Your task to perform on an android device: add a label to a message in the gmail app Image 0: 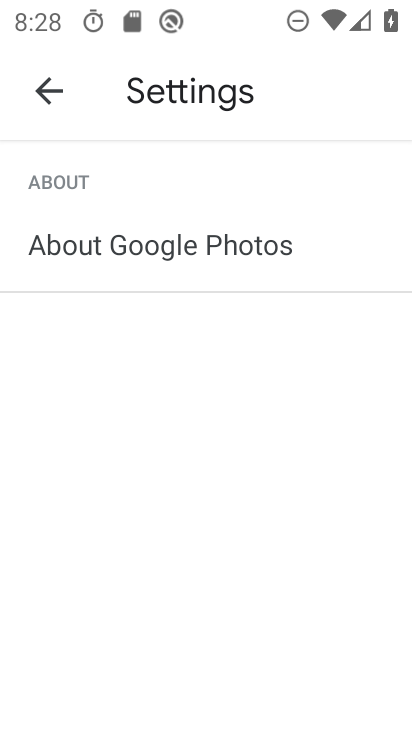
Step 0: press home button
Your task to perform on an android device: add a label to a message in the gmail app Image 1: 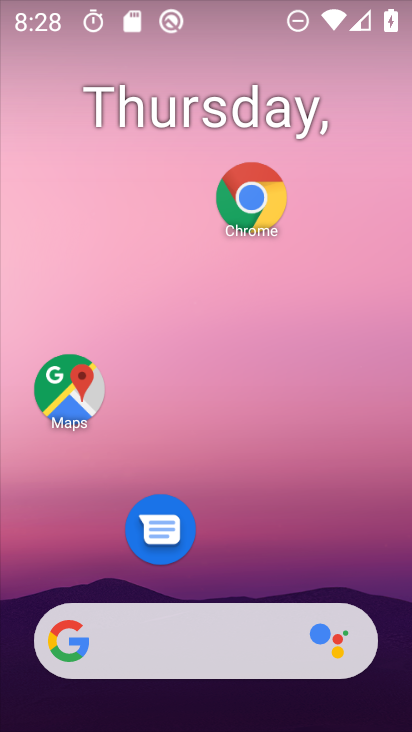
Step 1: drag from (232, 549) to (169, 10)
Your task to perform on an android device: add a label to a message in the gmail app Image 2: 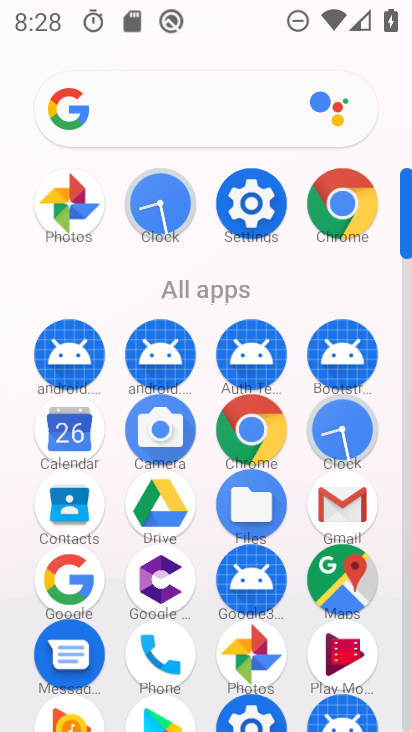
Step 2: click (344, 507)
Your task to perform on an android device: add a label to a message in the gmail app Image 3: 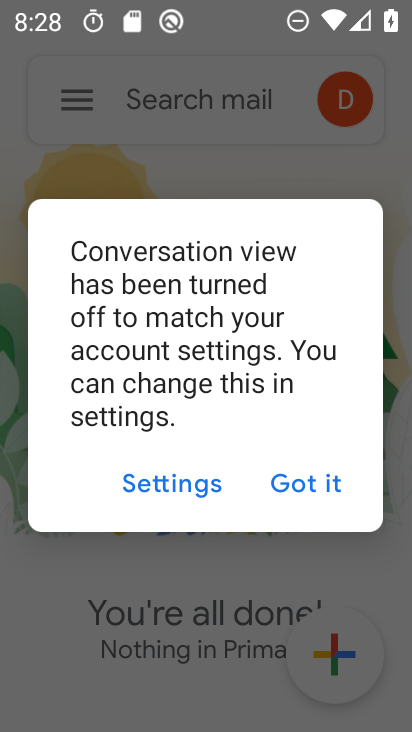
Step 3: click (316, 482)
Your task to perform on an android device: add a label to a message in the gmail app Image 4: 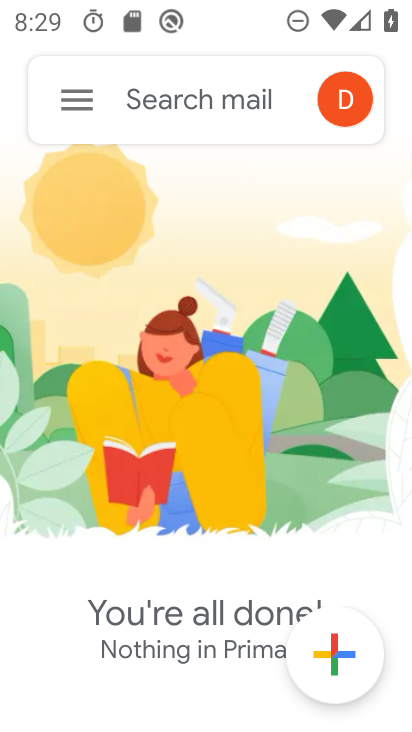
Step 4: click (80, 98)
Your task to perform on an android device: add a label to a message in the gmail app Image 5: 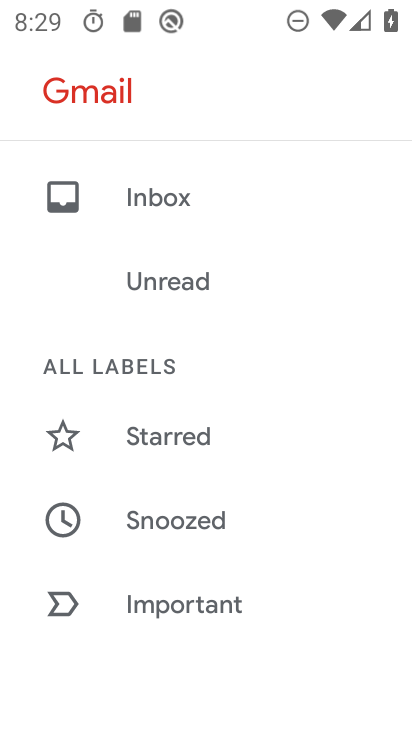
Step 5: drag from (242, 552) to (239, 219)
Your task to perform on an android device: add a label to a message in the gmail app Image 6: 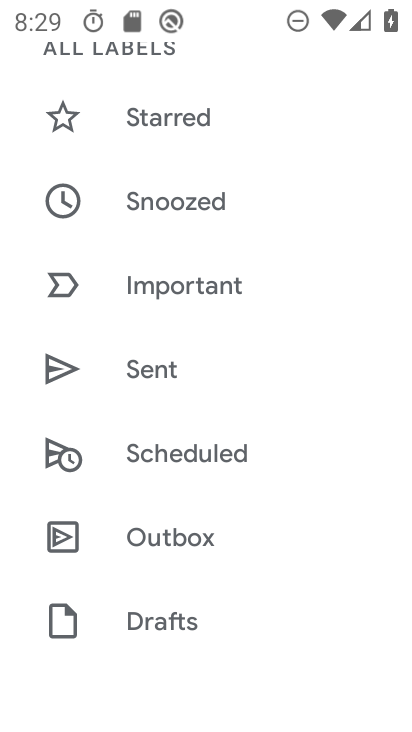
Step 6: drag from (197, 575) to (257, 182)
Your task to perform on an android device: add a label to a message in the gmail app Image 7: 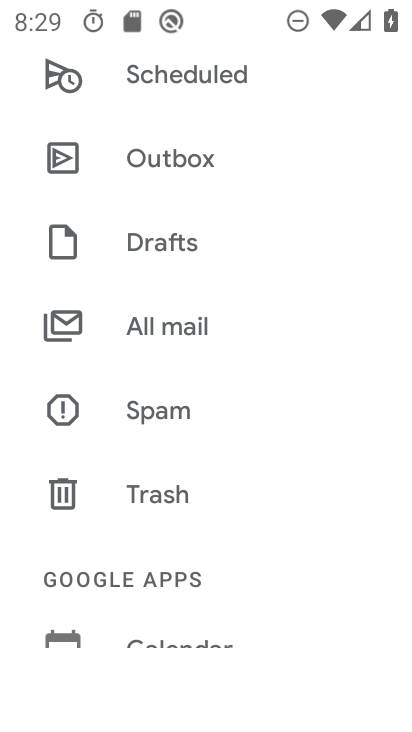
Step 7: click (201, 331)
Your task to perform on an android device: add a label to a message in the gmail app Image 8: 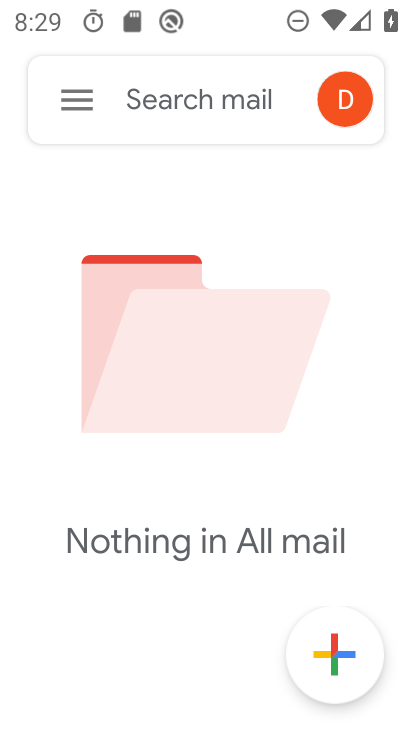
Step 8: task complete